Your task to perform on an android device: Open the stopwatch Image 0: 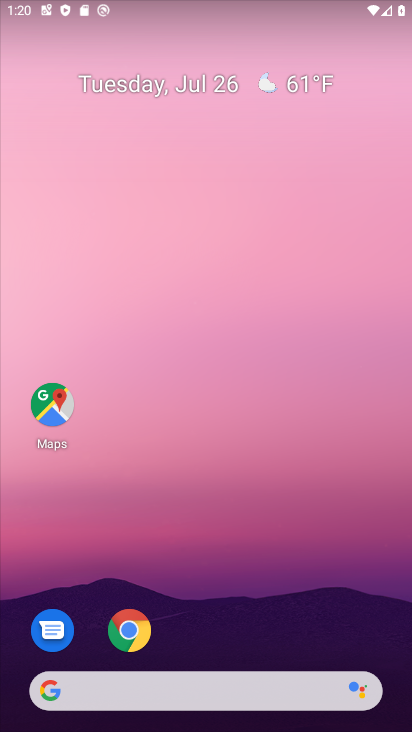
Step 0: drag from (243, 637) to (163, 14)
Your task to perform on an android device: Open the stopwatch Image 1: 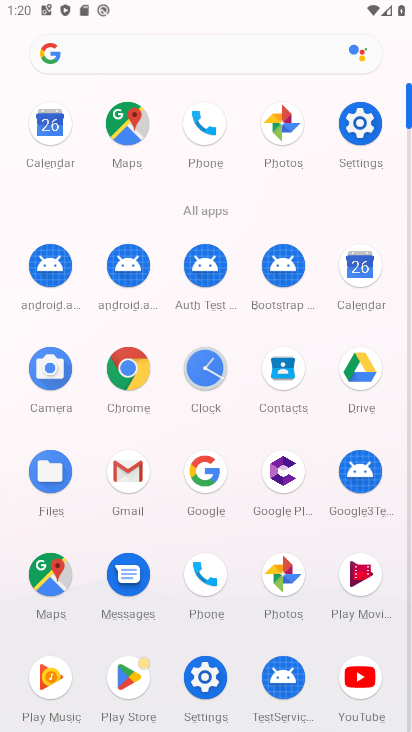
Step 1: click (207, 371)
Your task to perform on an android device: Open the stopwatch Image 2: 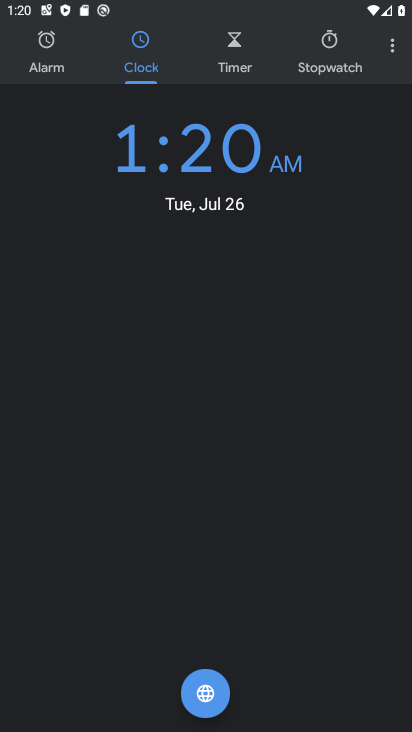
Step 2: click (323, 47)
Your task to perform on an android device: Open the stopwatch Image 3: 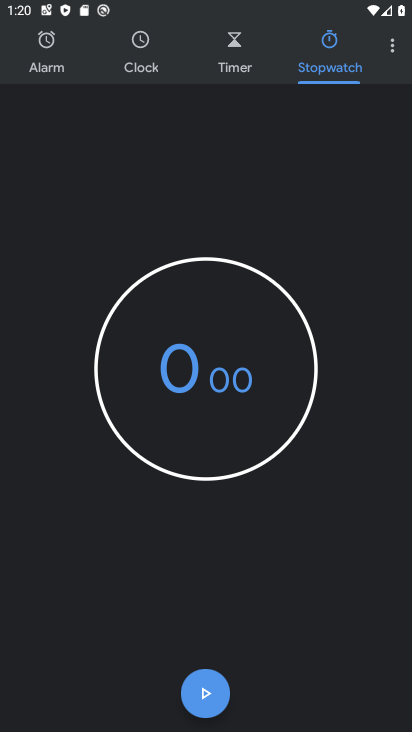
Step 3: task complete